Your task to perform on an android device: Open Chrome and go to settings Image 0: 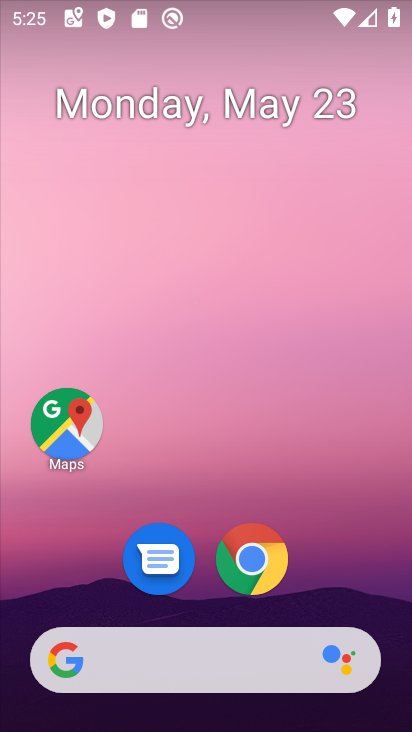
Step 0: drag from (268, 653) to (252, 30)
Your task to perform on an android device: Open Chrome and go to settings Image 1: 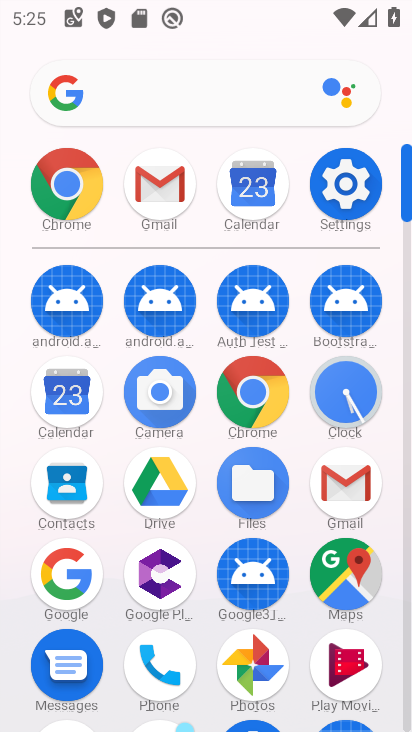
Step 1: click (264, 384)
Your task to perform on an android device: Open Chrome and go to settings Image 2: 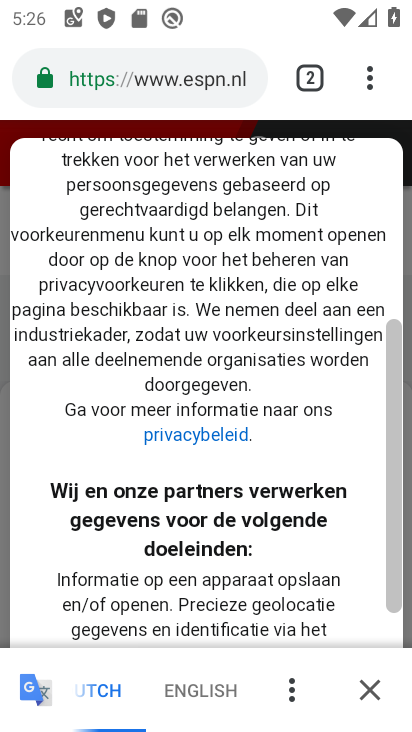
Step 2: task complete